Your task to perform on an android device: Go to sound settings Image 0: 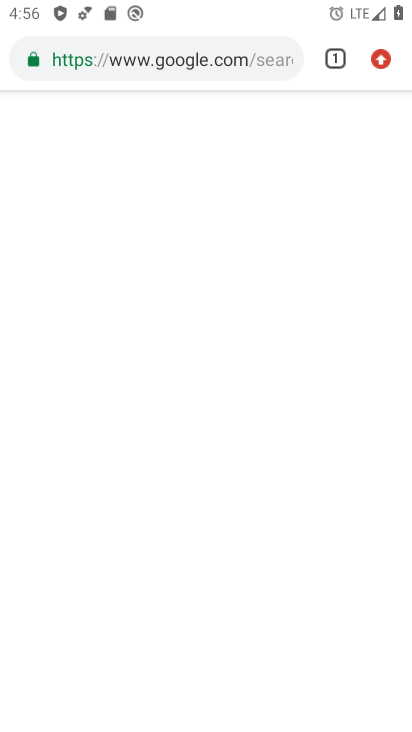
Step 0: press home button
Your task to perform on an android device: Go to sound settings Image 1: 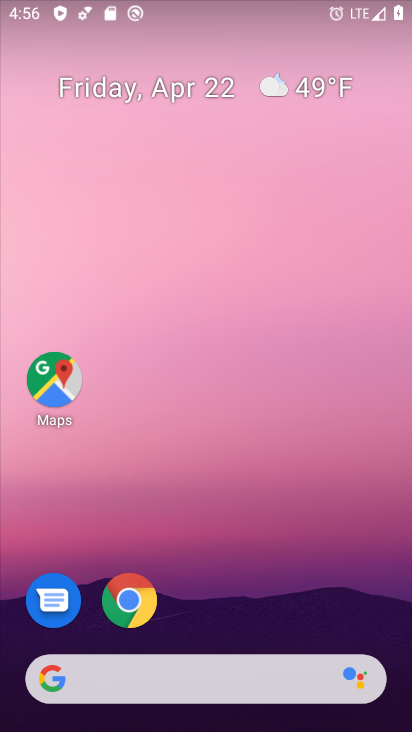
Step 1: drag from (206, 494) to (211, 157)
Your task to perform on an android device: Go to sound settings Image 2: 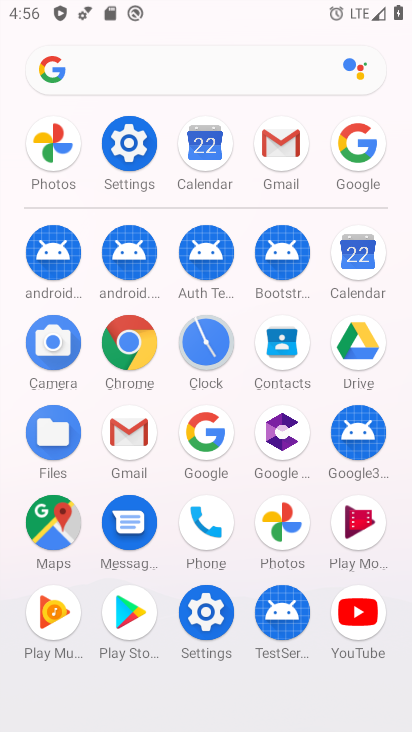
Step 2: click (130, 142)
Your task to perform on an android device: Go to sound settings Image 3: 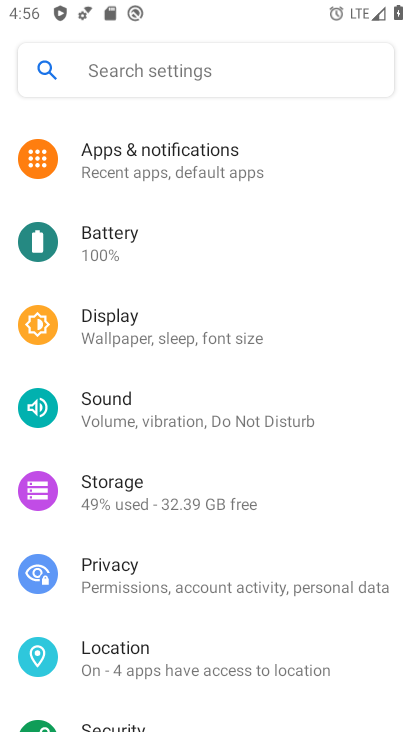
Step 3: click (206, 418)
Your task to perform on an android device: Go to sound settings Image 4: 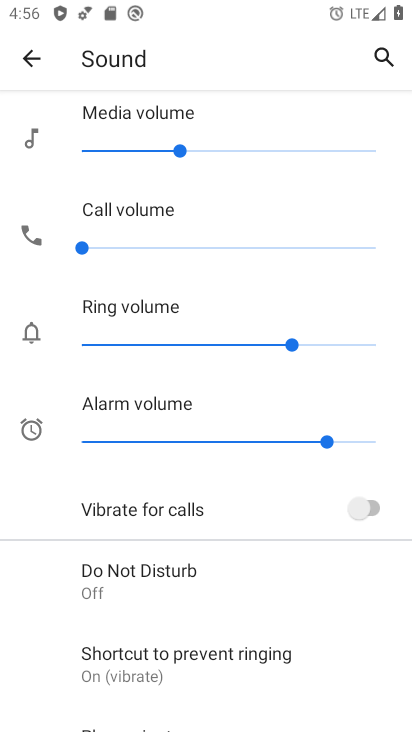
Step 4: task complete